Your task to perform on an android device: How do I get to the nearest Nordstrom? Image 0: 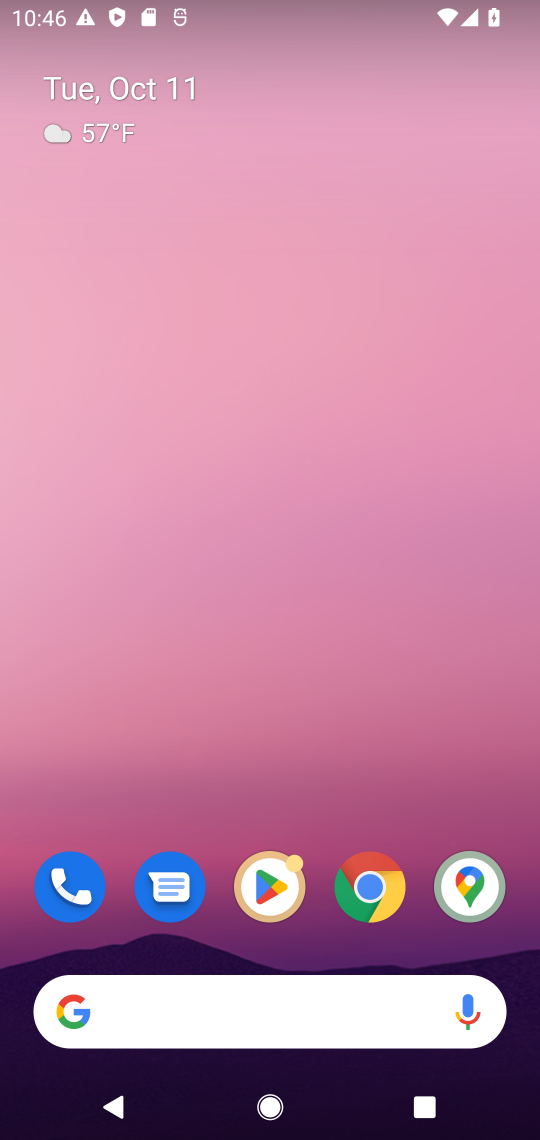
Step 0: click (329, 998)
Your task to perform on an android device: How do I get to the nearest Nordstrom? Image 1: 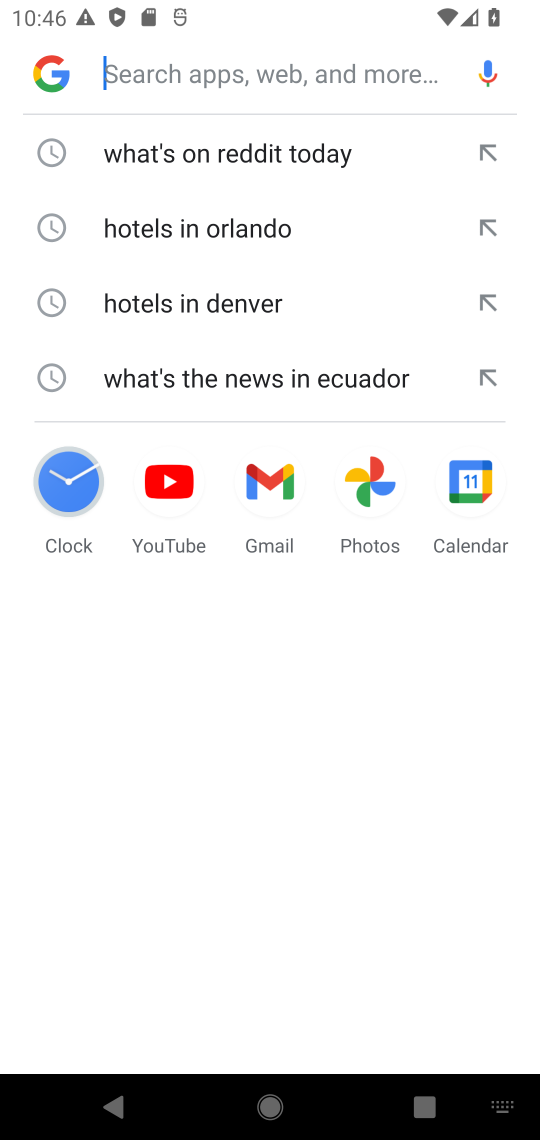
Step 1: type "How do I get to the nearest Nordstrom"
Your task to perform on an android device: How do I get to the nearest Nordstrom? Image 2: 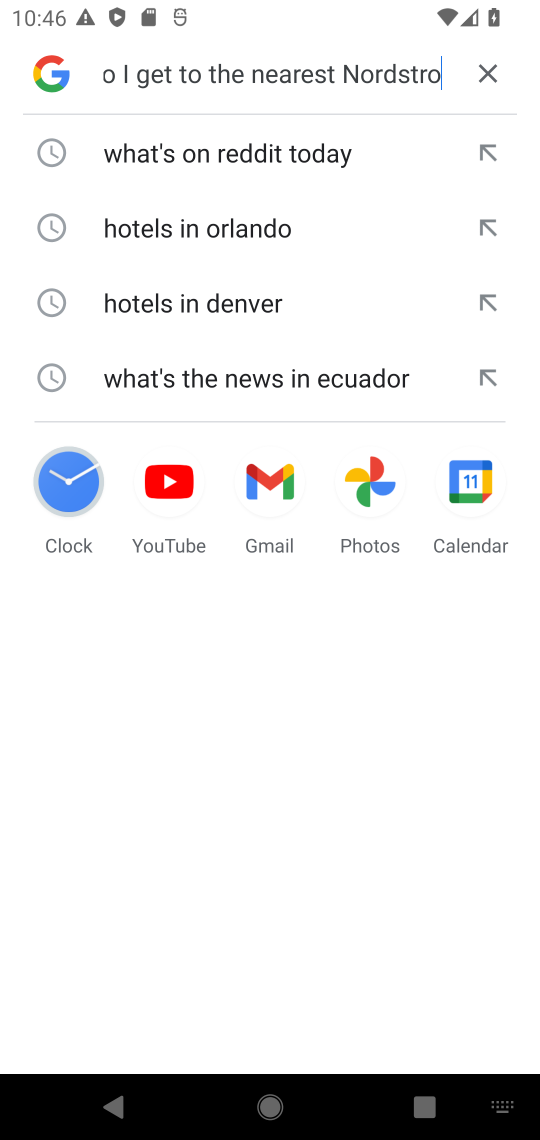
Step 2: press enter
Your task to perform on an android device: How do I get to the nearest Nordstrom? Image 3: 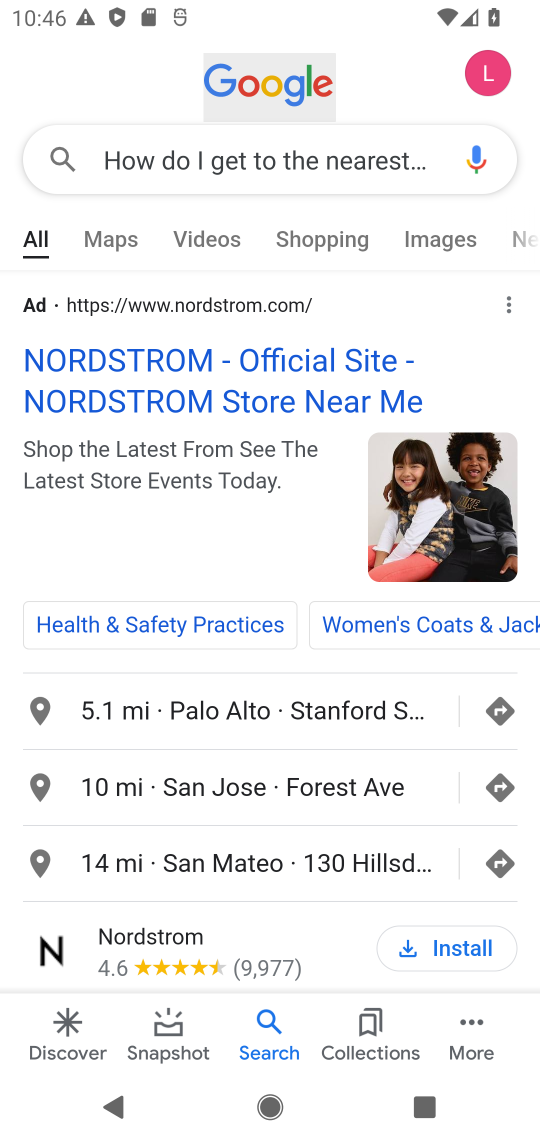
Step 3: task complete